Your task to perform on an android device: Open calendar and show me the fourth week of next month Image 0: 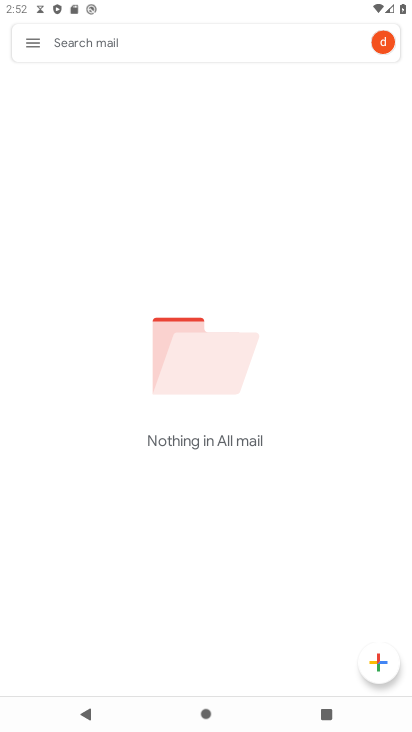
Step 0: press home button
Your task to perform on an android device: Open calendar and show me the fourth week of next month Image 1: 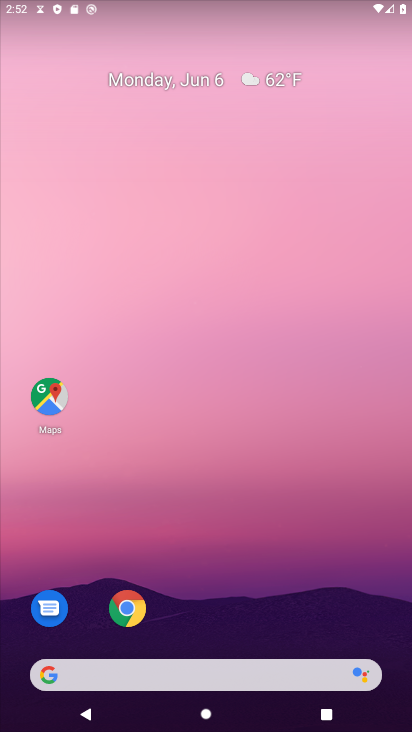
Step 1: drag from (256, 574) to (303, 9)
Your task to perform on an android device: Open calendar and show me the fourth week of next month Image 2: 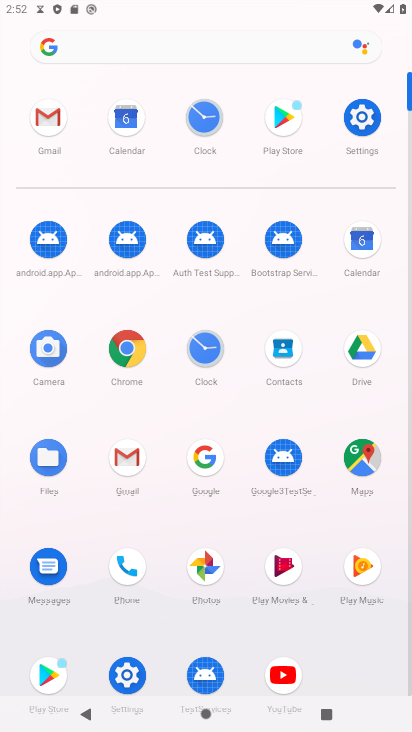
Step 2: click (354, 243)
Your task to perform on an android device: Open calendar and show me the fourth week of next month Image 3: 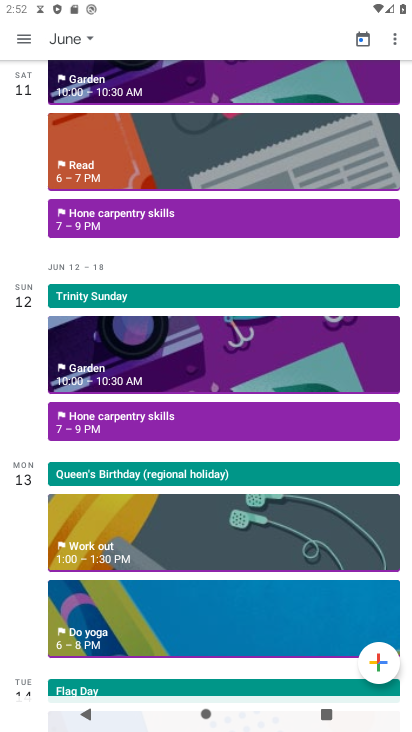
Step 3: click (85, 45)
Your task to perform on an android device: Open calendar and show me the fourth week of next month Image 4: 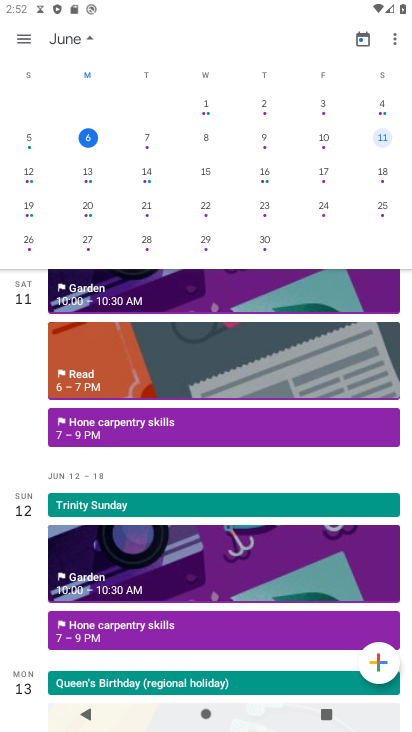
Step 4: drag from (391, 238) to (21, 222)
Your task to perform on an android device: Open calendar and show me the fourth week of next month Image 5: 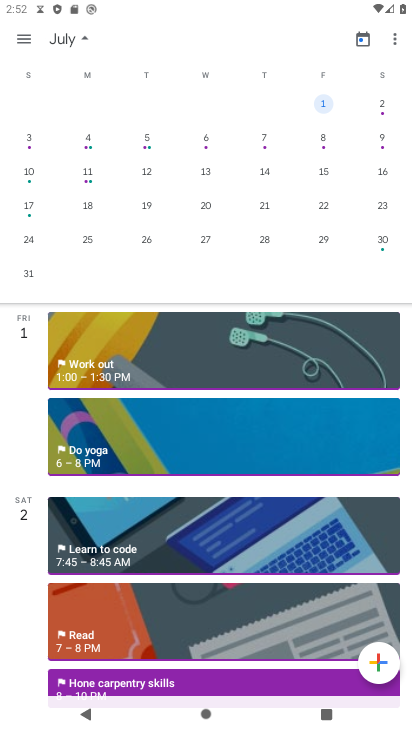
Step 5: click (25, 211)
Your task to perform on an android device: Open calendar and show me the fourth week of next month Image 6: 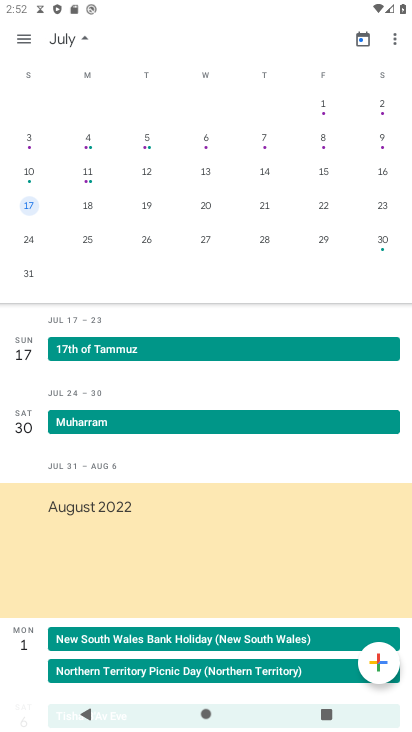
Step 6: task complete